Your task to perform on an android device: check out phone information Image 0: 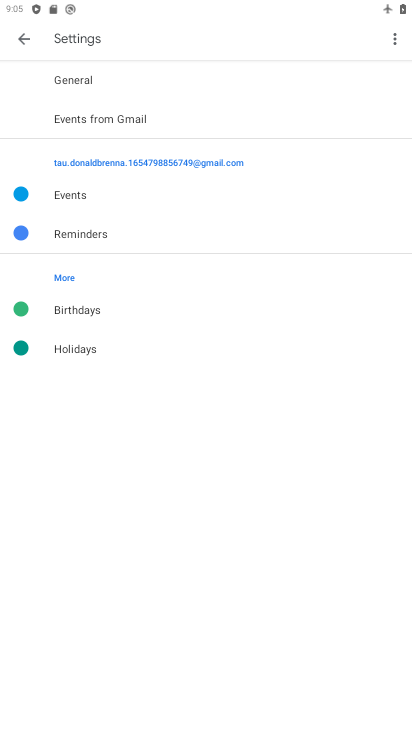
Step 0: press home button
Your task to perform on an android device: check out phone information Image 1: 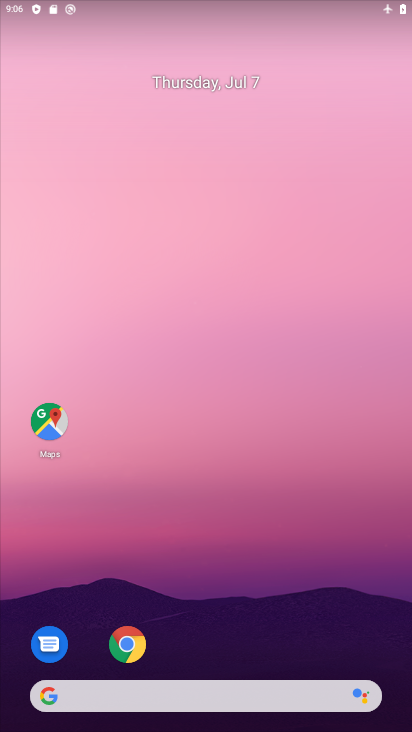
Step 1: drag from (294, 618) to (270, 155)
Your task to perform on an android device: check out phone information Image 2: 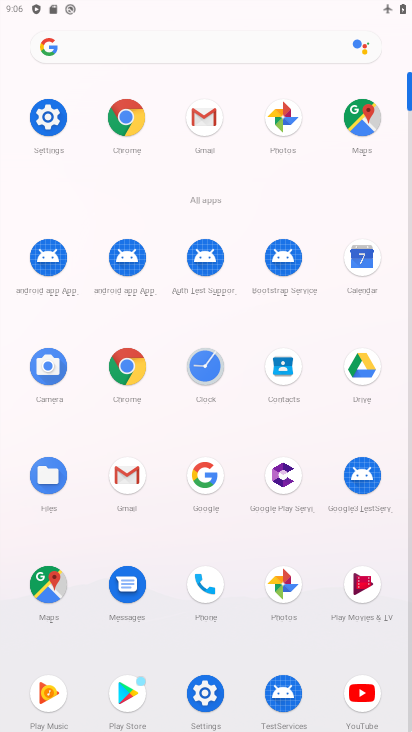
Step 2: click (208, 579)
Your task to perform on an android device: check out phone information Image 3: 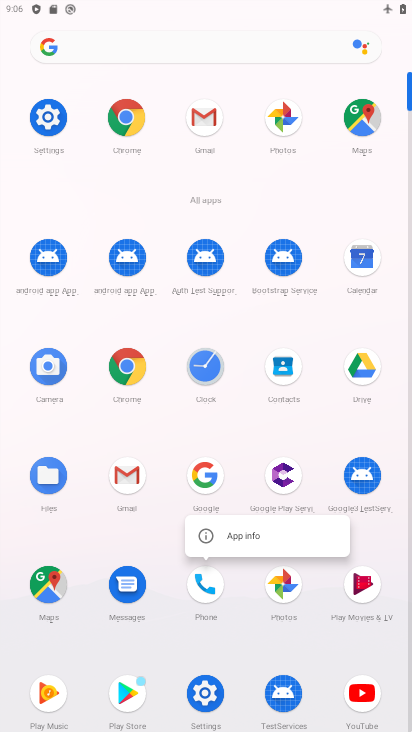
Step 3: click (231, 532)
Your task to perform on an android device: check out phone information Image 4: 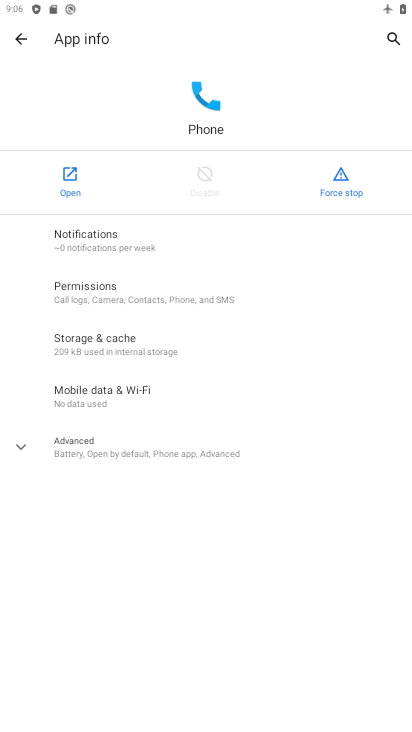
Step 4: task complete